Your task to perform on an android device: turn on bluetooth scan Image 0: 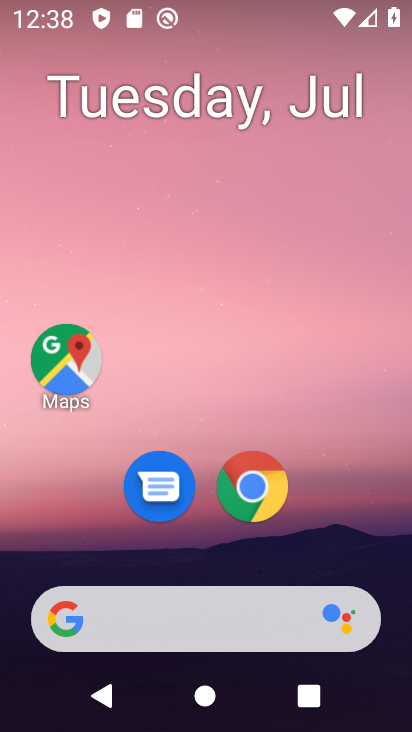
Step 0: drag from (357, 542) to (359, 78)
Your task to perform on an android device: turn on bluetooth scan Image 1: 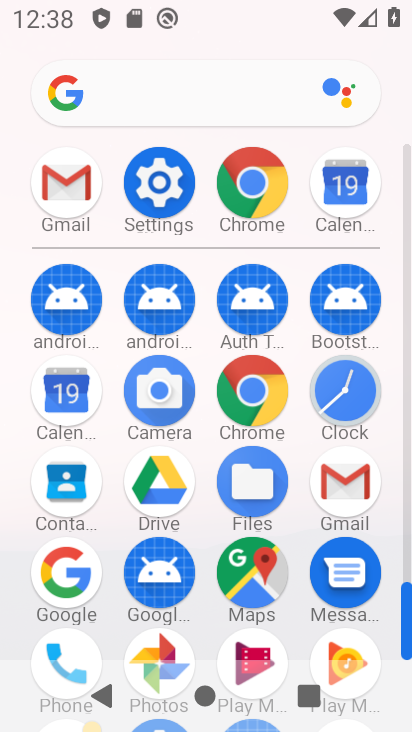
Step 1: click (159, 191)
Your task to perform on an android device: turn on bluetooth scan Image 2: 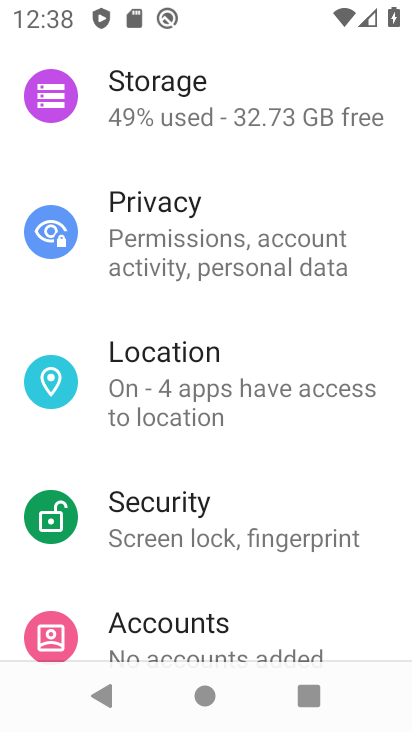
Step 2: drag from (384, 191) to (390, 338)
Your task to perform on an android device: turn on bluetooth scan Image 3: 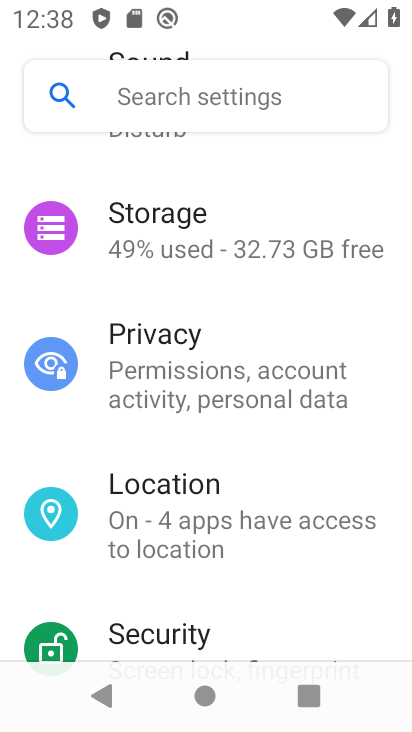
Step 3: drag from (363, 195) to (366, 428)
Your task to perform on an android device: turn on bluetooth scan Image 4: 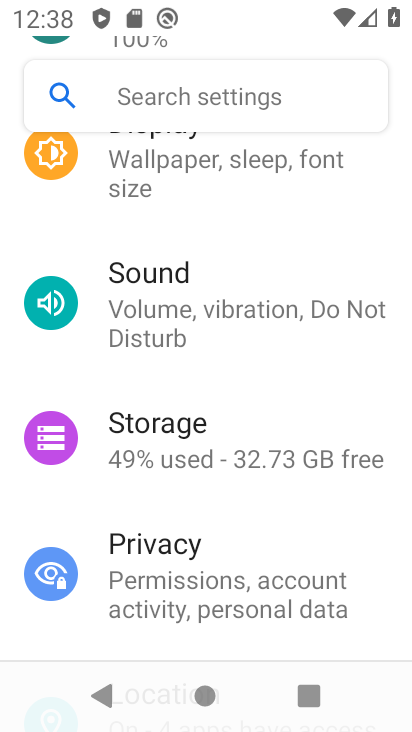
Step 4: drag from (368, 194) to (365, 383)
Your task to perform on an android device: turn on bluetooth scan Image 5: 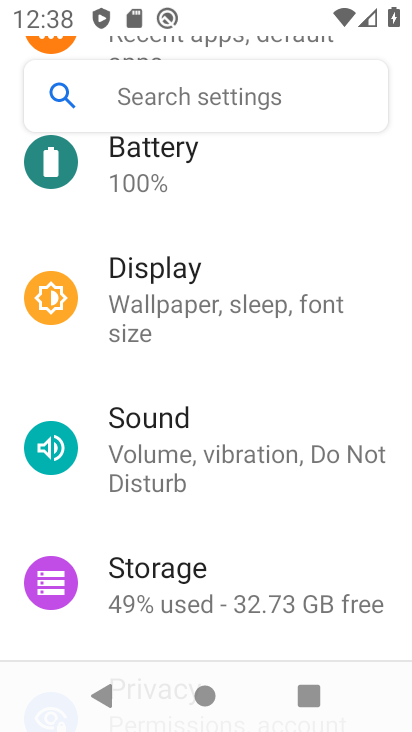
Step 5: drag from (356, 205) to (346, 400)
Your task to perform on an android device: turn on bluetooth scan Image 6: 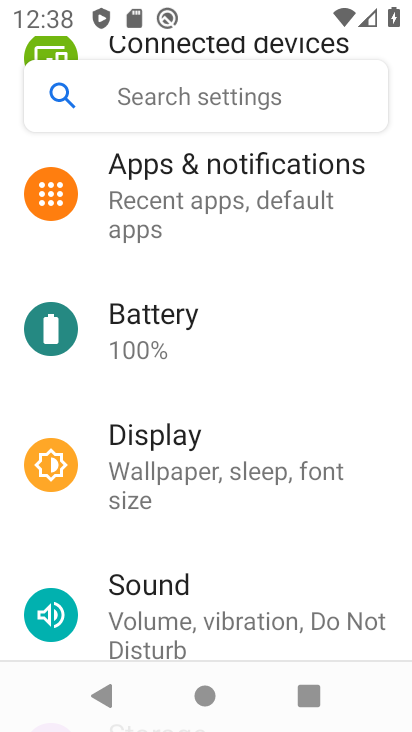
Step 6: drag from (358, 196) to (357, 424)
Your task to perform on an android device: turn on bluetooth scan Image 7: 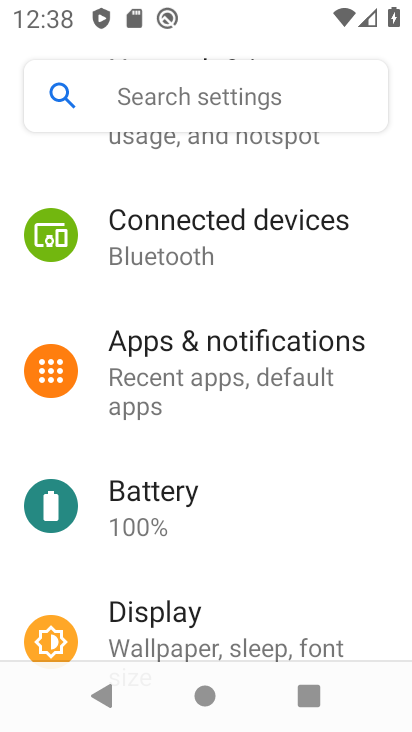
Step 7: drag from (342, 527) to (351, 364)
Your task to perform on an android device: turn on bluetooth scan Image 8: 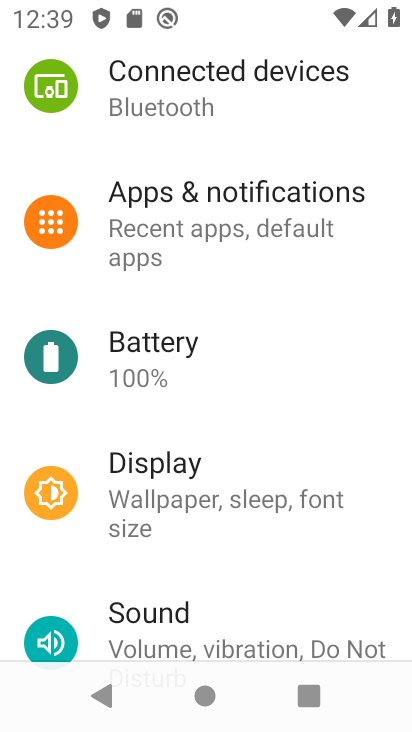
Step 8: drag from (363, 579) to (371, 365)
Your task to perform on an android device: turn on bluetooth scan Image 9: 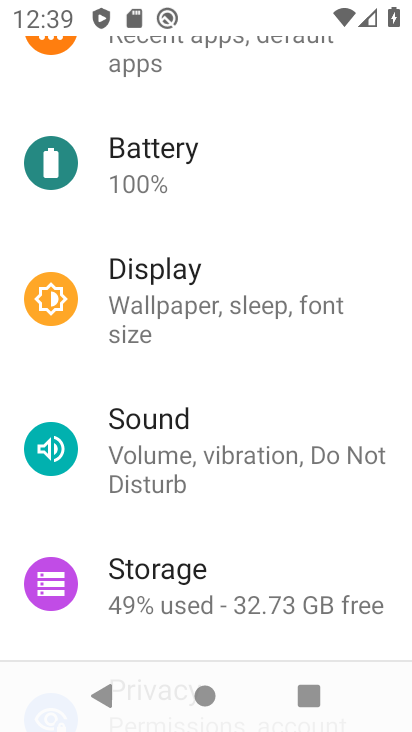
Step 9: drag from (339, 536) to (345, 328)
Your task to perform on an android device: turn on bluetooth scan Image 10: 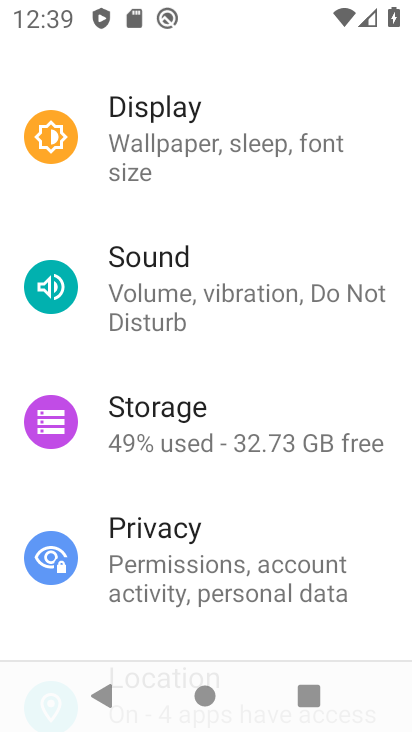
Step 10: drag from (352, 509) to (366, 289)
Your task to perform on an android device: turn on bluetooth scan Image 11: 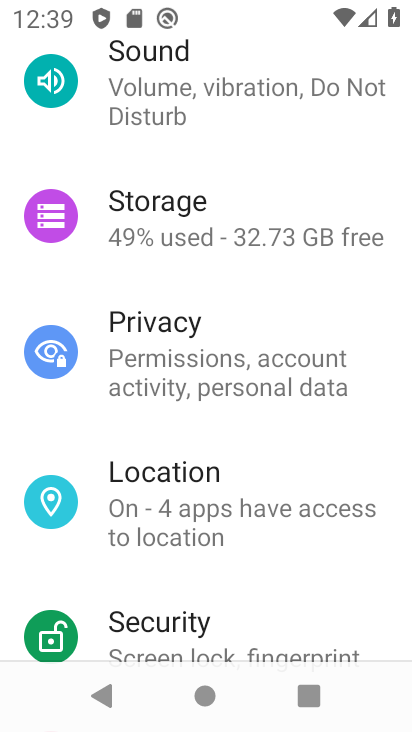
Step 11: click (283, 513)
Your task to perform on an android device: turn on bluetooth scan Image 12: 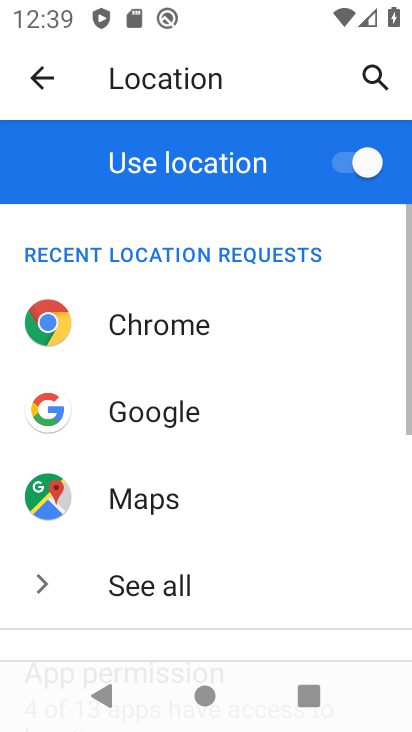
Step 12: drag from (310, 601) to (337, 440)
Your task to perform on an android device: turn on bluetooth scan Image 13: 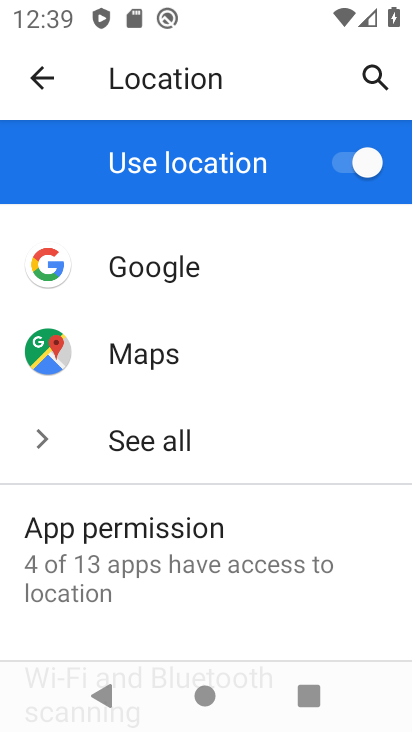
Step 13: drag from (348, 628) to (368, 438)
Your task to perform on an android device: turn on bluetooth scan Image 14: 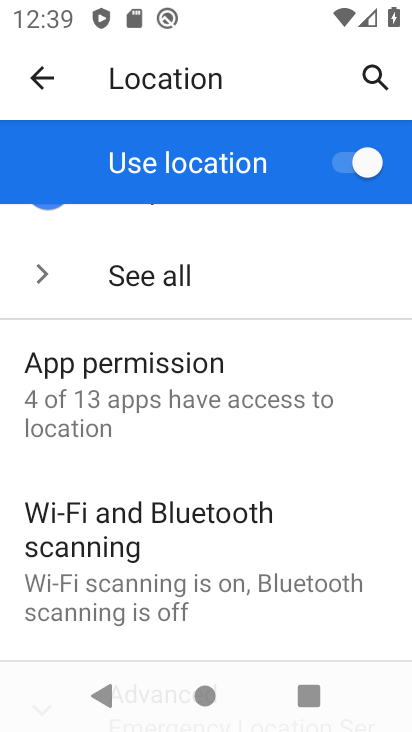
Step 14: drag from (335, 519) to (334, 375)
Your task to perform on an android device: turn on bluetooth scan Image 15: 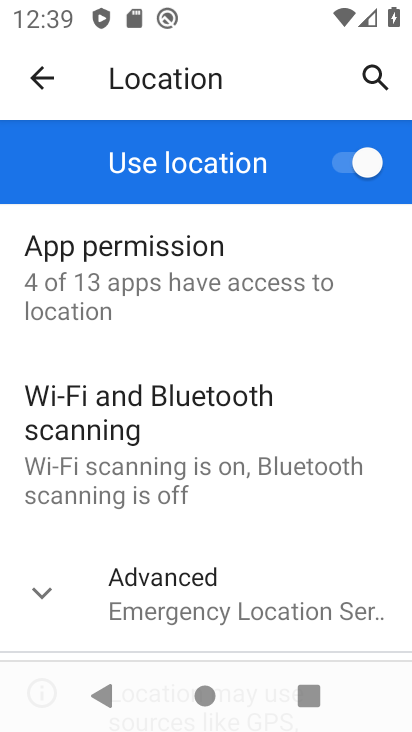
Step 15: click (293, 443)
Your task to perform on an android device: turn on bluetooth scan Image 16: 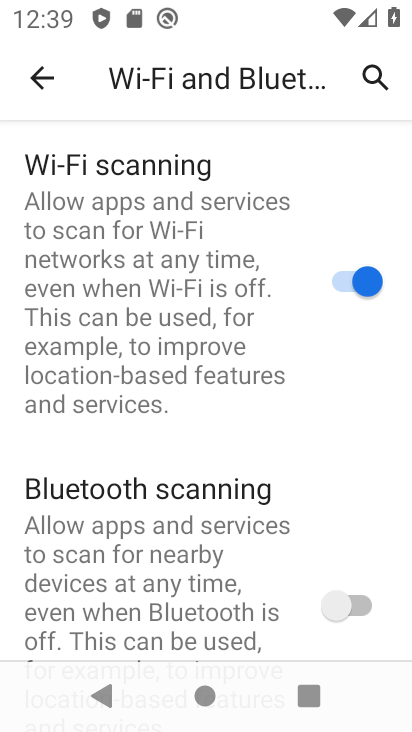
Step 16: click (342, 608)
Your task to perform on an android device: turn on bluetooth scan Image 17: 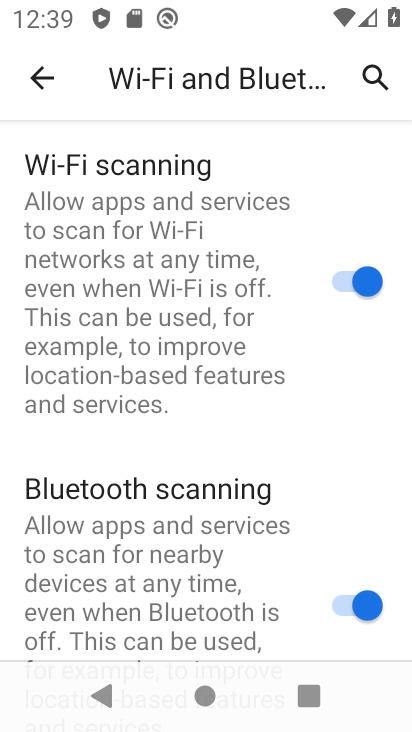
Step 17: task complete